Your task to perform on an android device: Open Google Image 0: 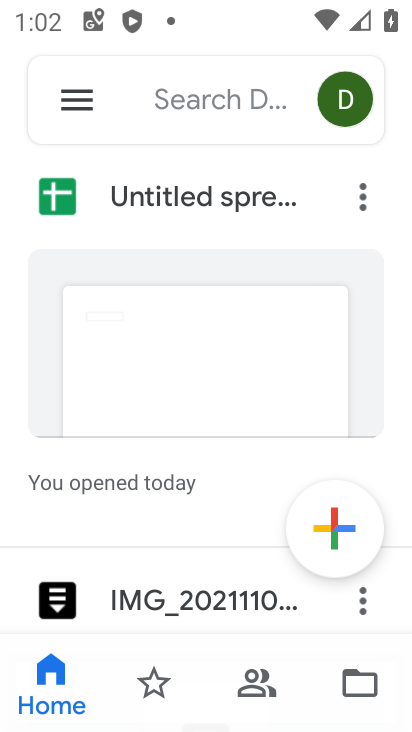
Step 0: press home button
Your task to perform on an android device: Open Google Image 1: 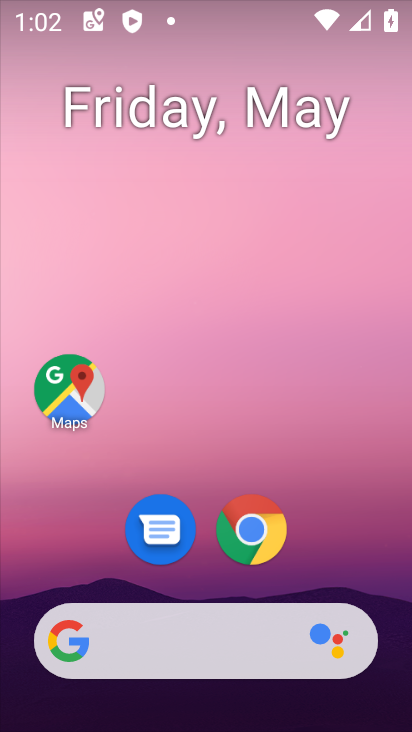
Step 1: drag from (364, 558) to (310, 164)
Your task to perform on an android device: Open Google Image 2: 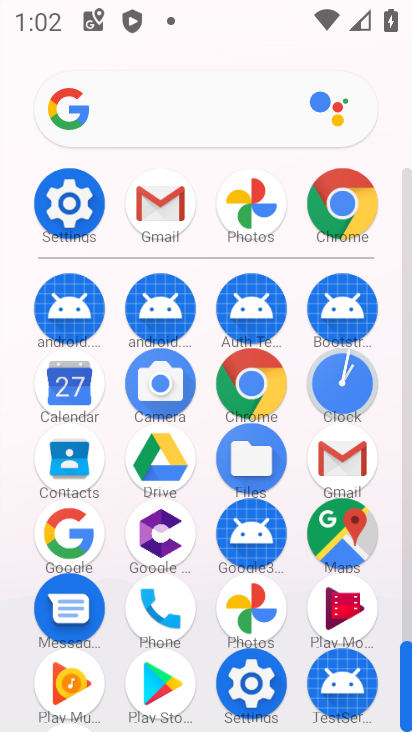
Step 2: click (323, 221)
Your task to perform on an android device: Open Google Image 3: 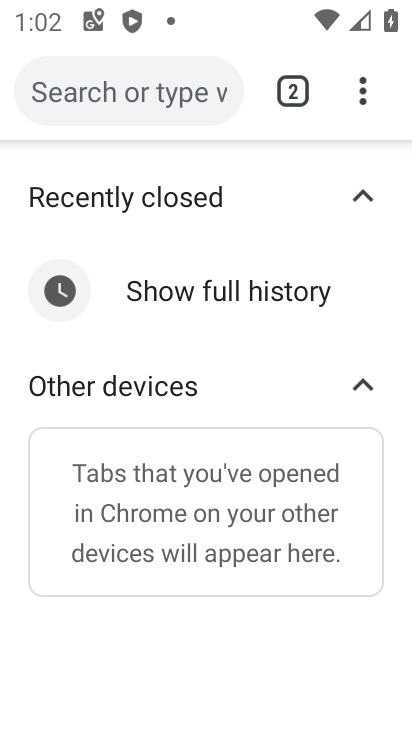
Step 3: click (170, 98)
Your task to perform on an android device: Open Google Image 4: 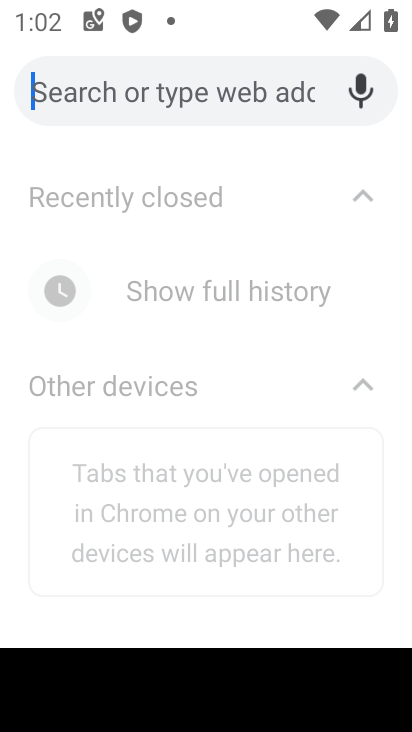
Step 4: type "google.com"
Your task to perform on an android device: Open Google Image 5: 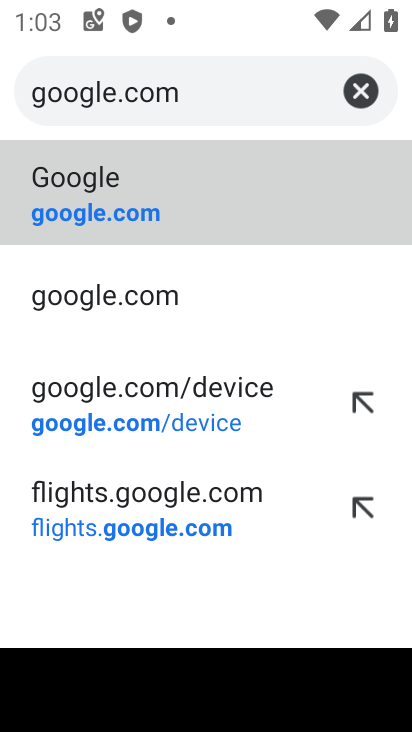
Step 5: task complete